Your task to perform on an android device: Open maps Image 0: 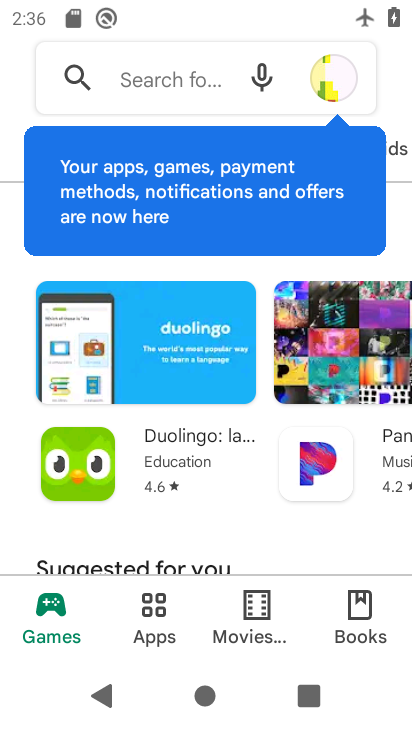
Step 0: press home button
Your task to perform on an android device: Open maps Image 1: 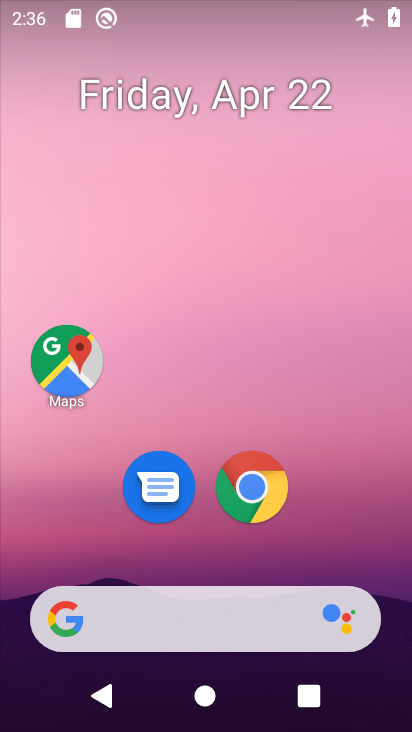
Step 1: click (77, 371)
Your task to perform on an android device: Open maps Image 2: 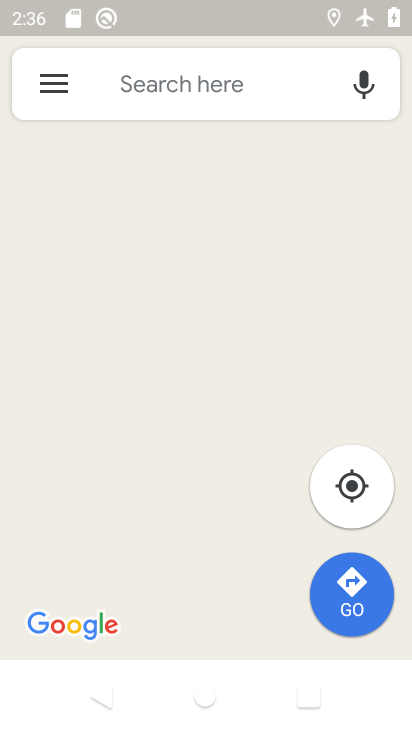
Step 2: click (190, 79)
Your task to perform on an android device: Open maps Image 3: 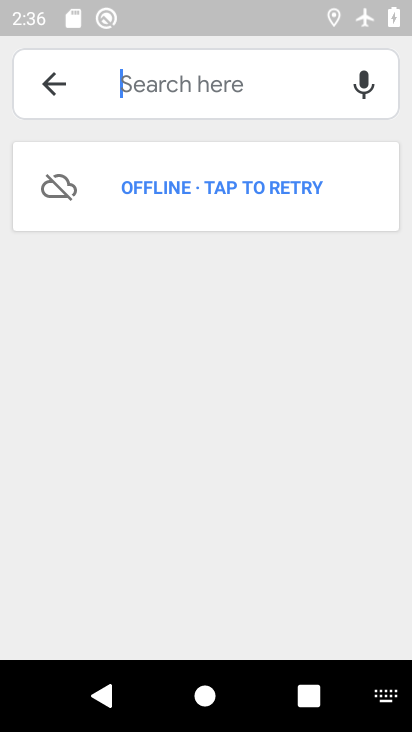
Step 3: task complete